Your task to perform on an android device: toggle pop-ups in chrome Image 0: 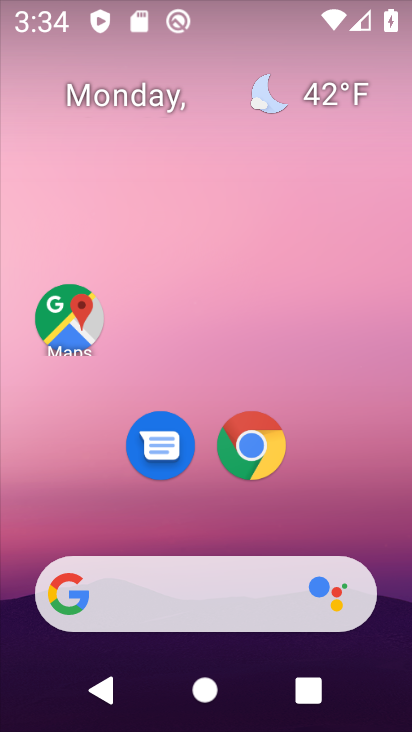
Step 0: drag from (5, 473) to (236, 25)
Your task to perform on an android device: toggle pop-ups in chrome Image 1: 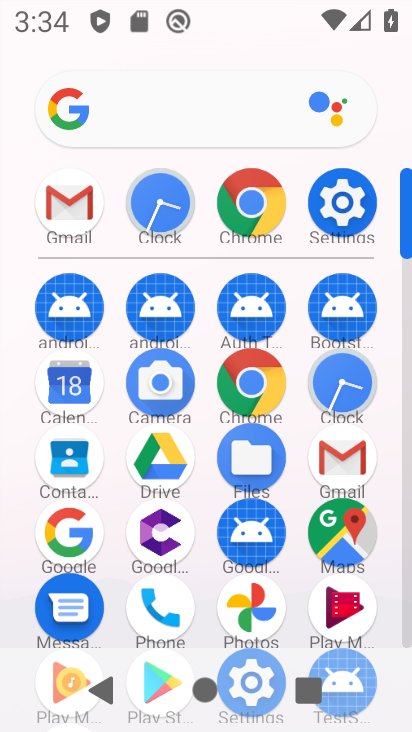
Step 1: click (228, 382)
Your task to perform on an android device: toggle pop-ups in chrome Image 2: 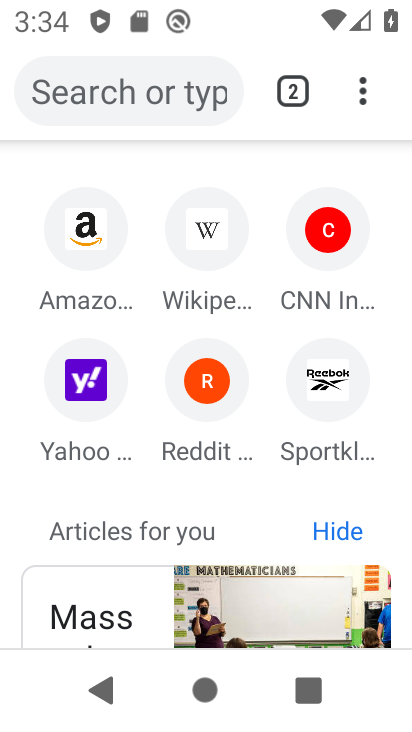
Step 2: click (359, 81)
Your task to perform on an android device: toggle pop-ups in chrome Image 3: 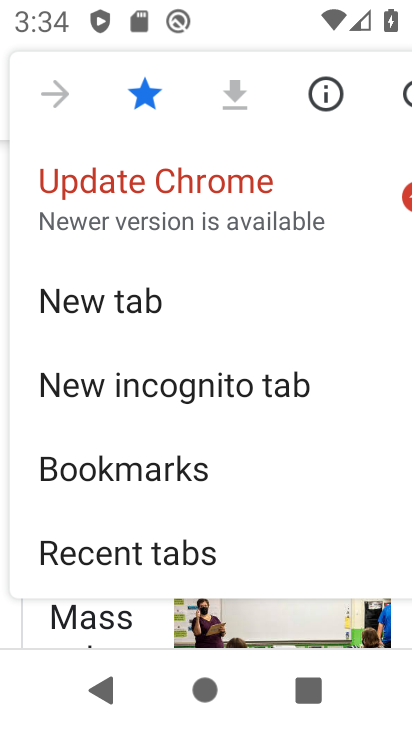
Step 3: drag from (122, 522) to (149, 205)
Your task to perform on an android device: toggle pop-ups in chrome Image 4: 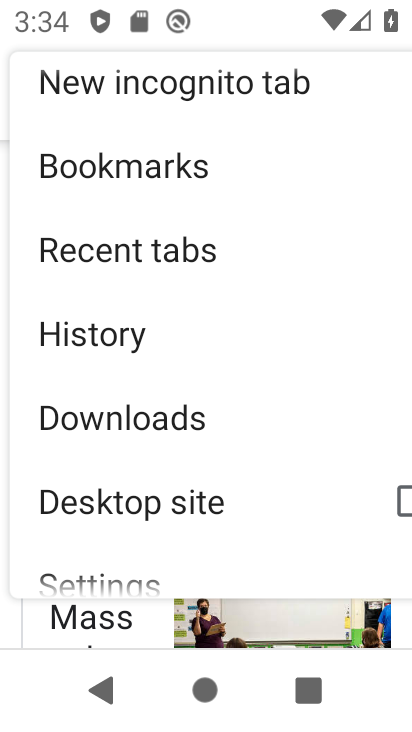
Step 4: drag from (174, 514) to (257, 218)
Your task to perform on an android device: toggle pop-ups in chrome Image 5: 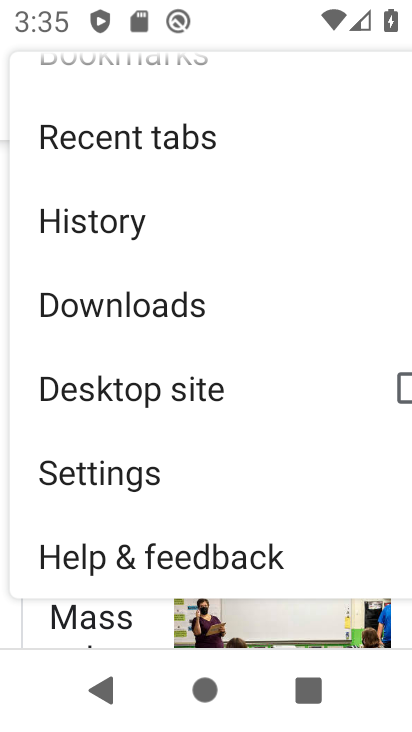
Step 5: click (110, 475)
Your task to perform on an android device: toggle pop-ups in chrome Image 6: 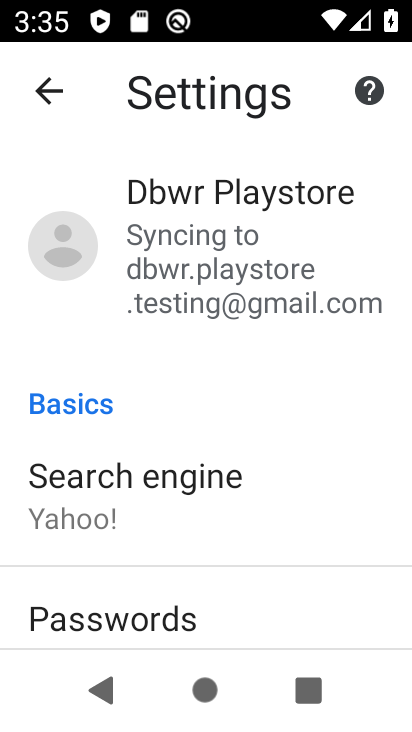
Step 6: drag from (142, 588) to (192, 310)
Your task to perform on an android device: toggle pop-ups in chrome Image 7: 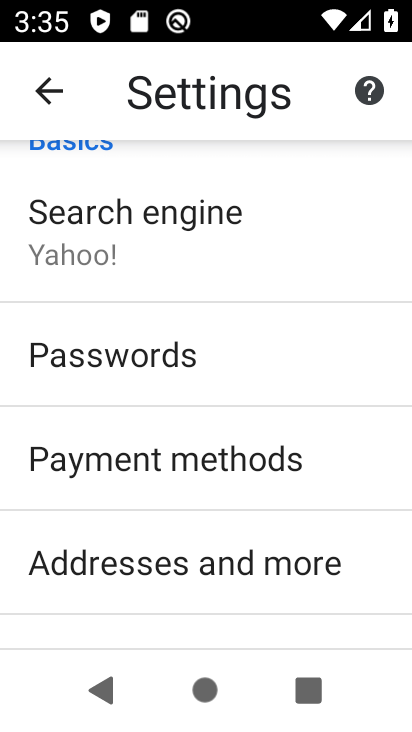
Step 7: drag from (157, 593) to (242, 225)
Your task to perform on an android device: toggle pop-ups in chrome Image 8: 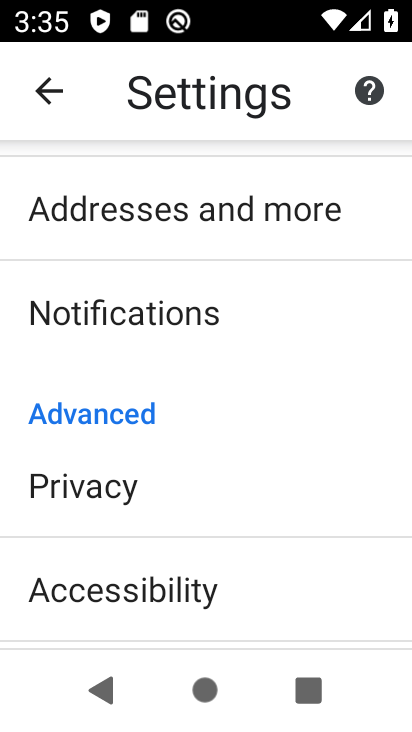
Step 8: drag from (178, 577) to (241, 178)
Your task to perform on an android device: toggle pop-ups in chrome Image 9: 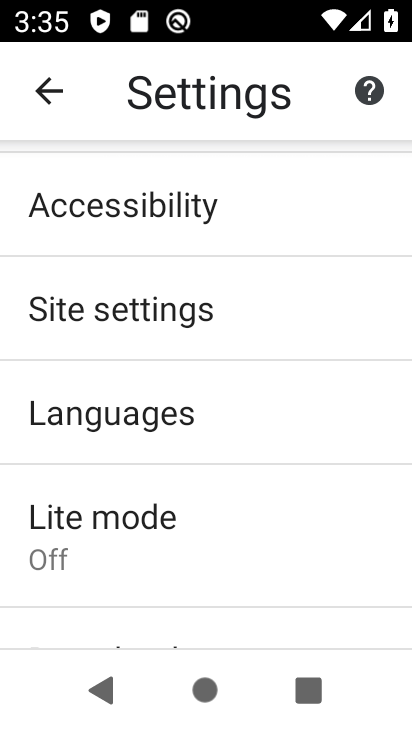
Step 9: click (193, 310)
Your task to perform on an android device: toggle pop-ups in chrome Image 10: 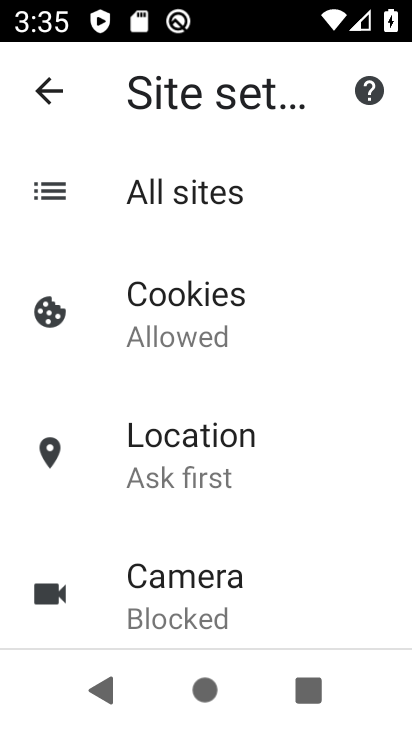
Step 10: drag from (119, 608) to (172, 245)
Your task to perform on an android device: toggle pop-ups in chrome Image 11: 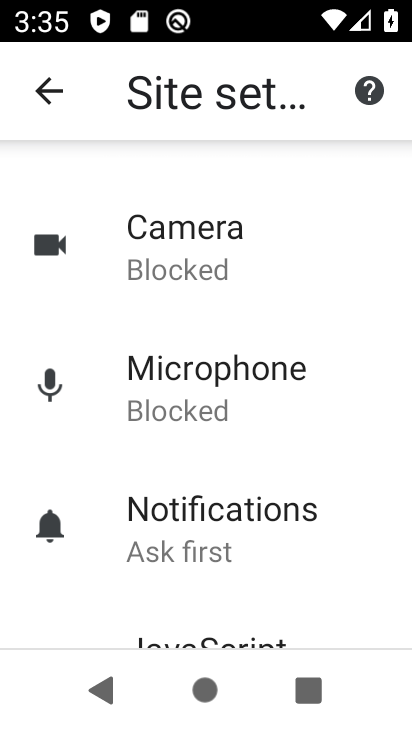
Step 11: drag from (167, 578) to (219, 204)
Your task to perform on an android device: toggle pop-ups in chrome Image 12: 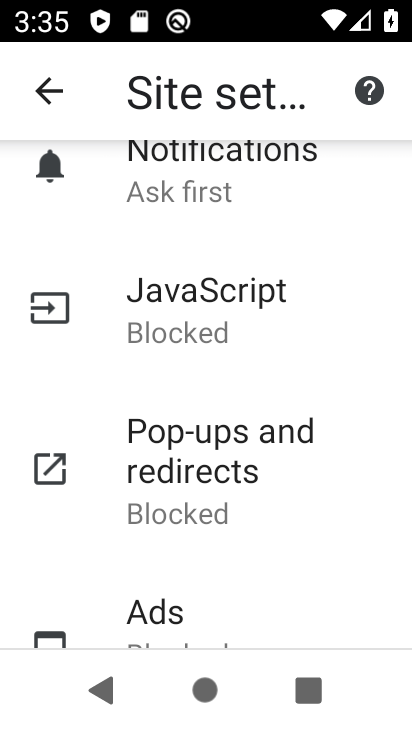
Step 12: click (238, 472)
Your task to perform on an android device: toggle pop-ups in chrome Image 13: 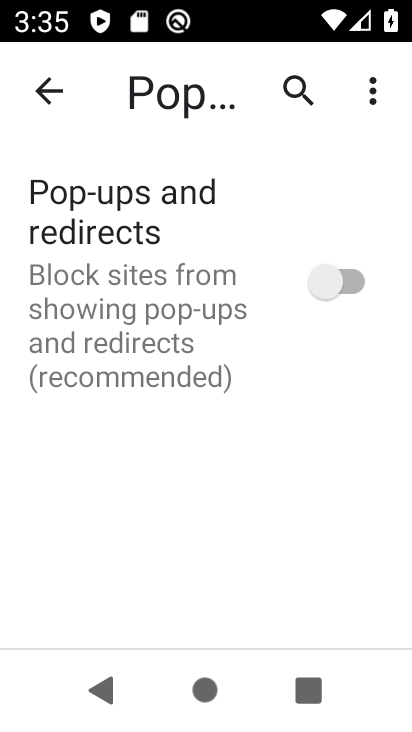
Step 13: click (326, 260)
Your task to perform on an android device: toggle pop-ups in chrome Image 14: 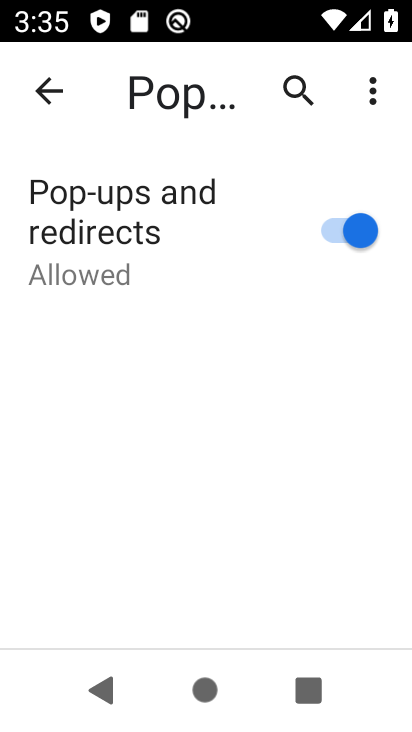
Step 14: task complete